Your task to perform on an android device: open chrome and create a bookmark for the current page Image 0: 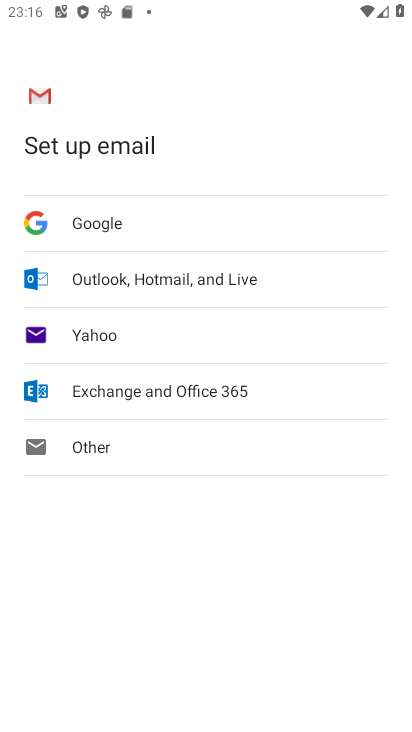
Step 0: press home button
Your task to perform on an android device: open chrome and create a bookmark for the current page Image 1: 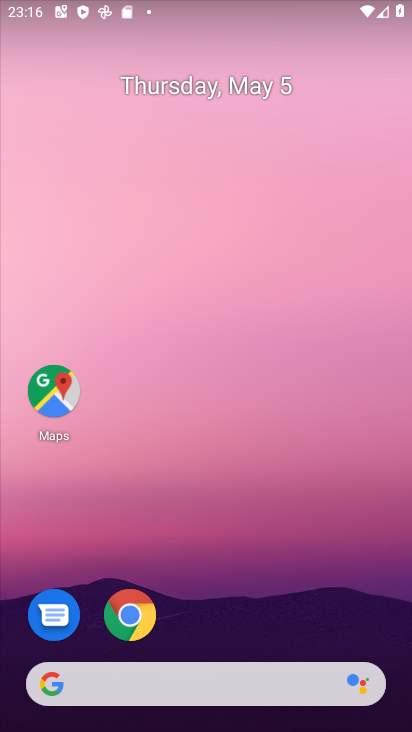
Step 1: click (128, 622)
Your task to perform on an android device: open chrome and create a bookmark for the current page Image 2: 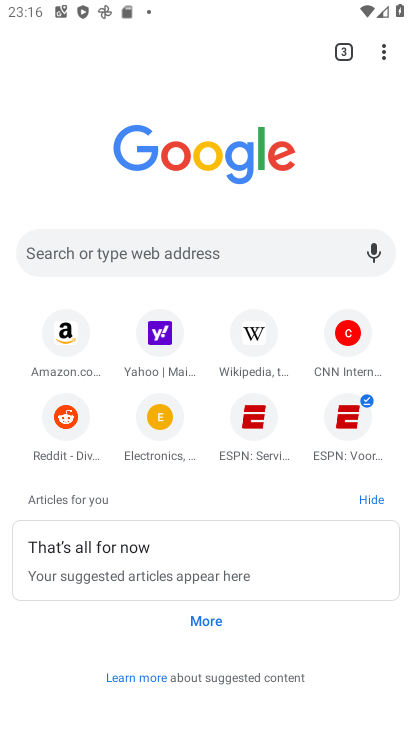
Step 2: click (163, 344)
Your task to perform on an android device: open chrome and create a bookmark for the current page Image 3: 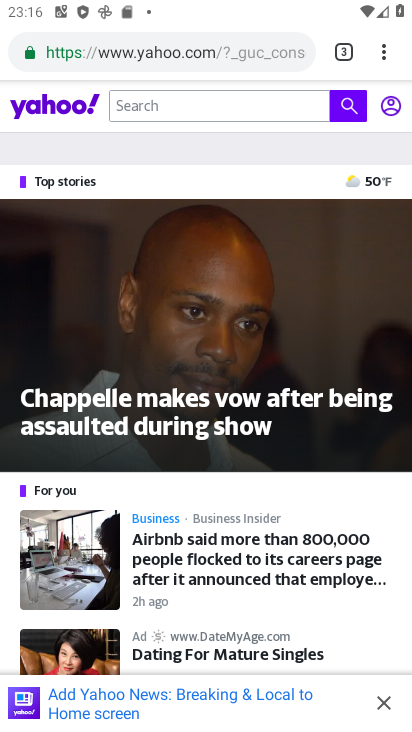
Step 3: click (377, 45)
Your task to perform on an android device: open chrome and create a bookmark for the current page Image 4: 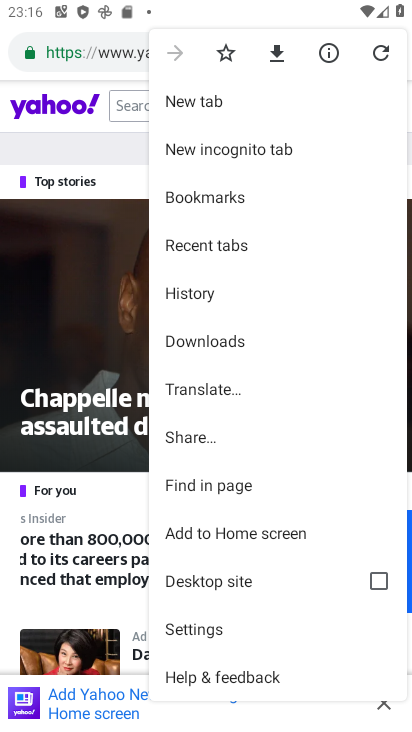
Step 4: click (216, 57)
Your task to perform on an android device: open chrome and create a bookmark for the current page Image 5: 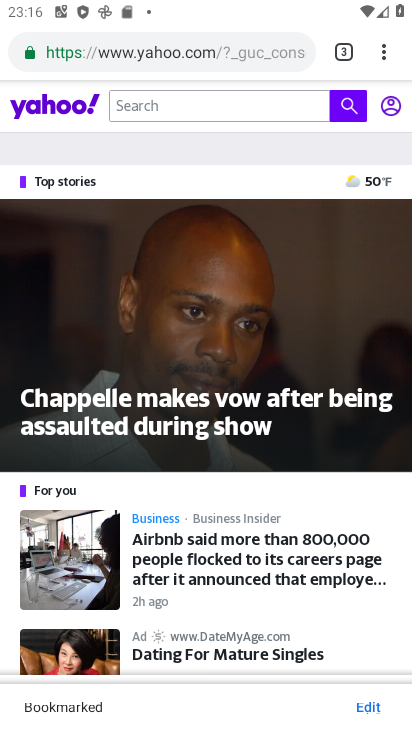
Step 5: task complete